Your task to perform on an android device: Open the web browser Image 0: 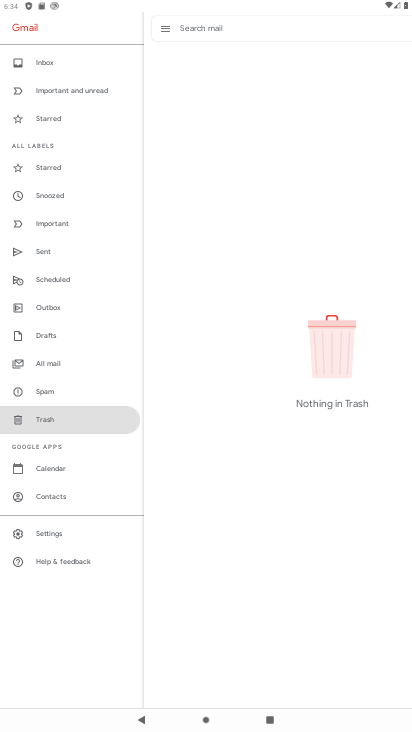
Step 0: press home button
Your task to perform on an android device: Open the web browser Image 1: 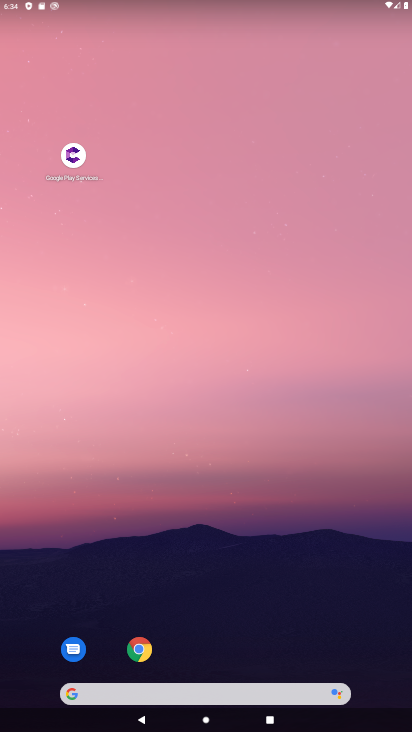
Step 1: click (138, 649)
Your task to perform on an android device: Open the web browser Image 2: 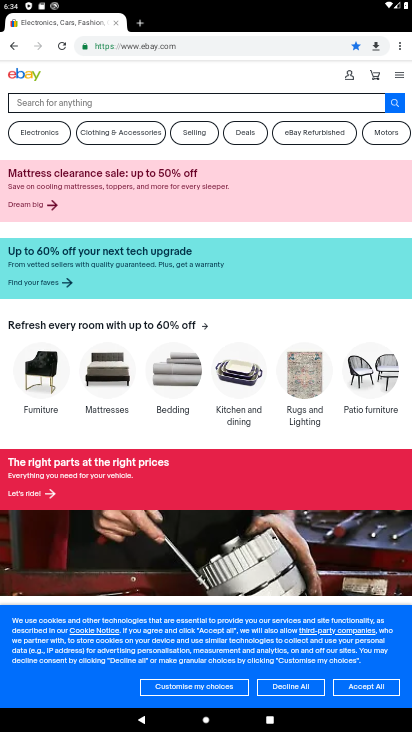
Step 2: task complete